Your task to perform on an android device: Open accessibility settings Image 0: 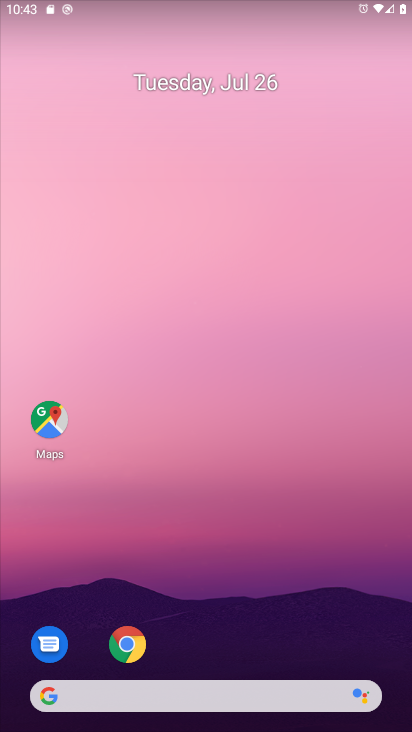
Step 0: drag from (221, 650) to (268, 6)
Your task to perform on an android device: Open accessibility settings Image 1: 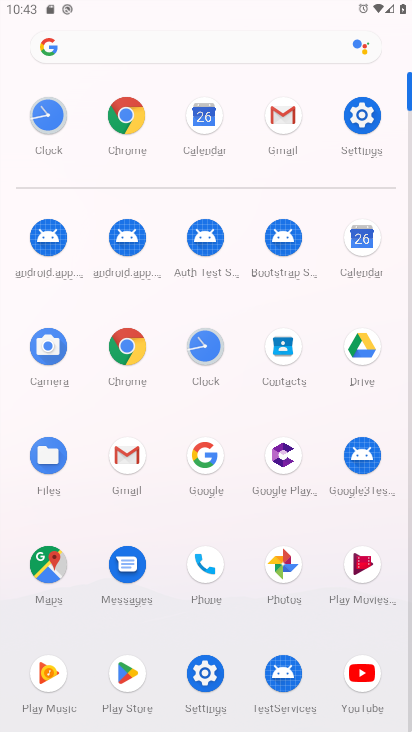
Step 1: click (208, 667)
Your task to perform on an android device: Open accessibility settings Image 2: 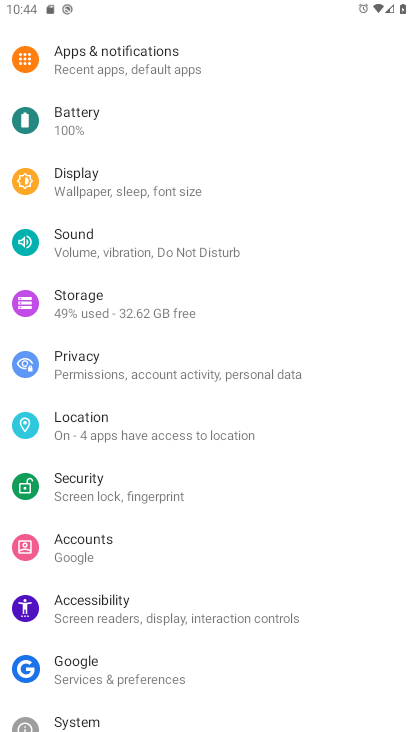
Step 2: click (123, 617)
Your task to perform on an android device: Open accessibility settings Image 3: 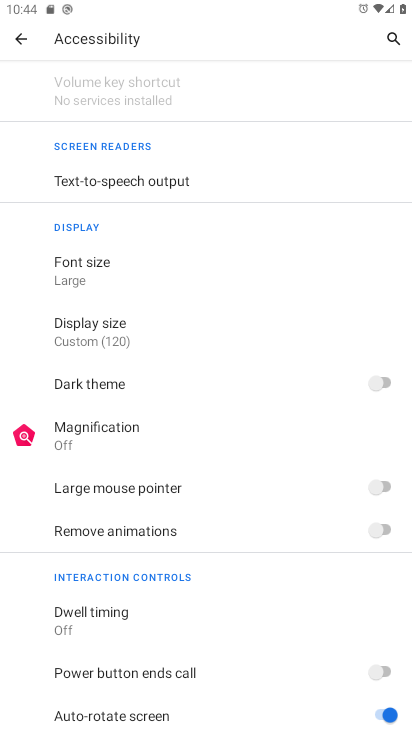
Step 3: task complete